Your task to perform on an android device: Show me popular games on the Play Store Image 0: 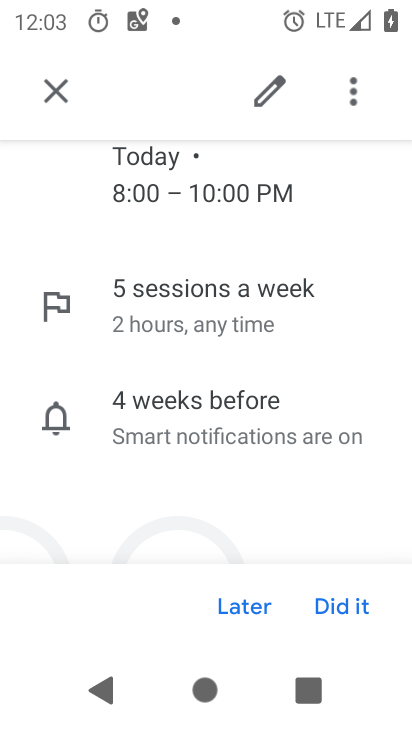
Step 0: press home button
Your task to perform on an android device: Show me popular games on the Play Store Image 1: 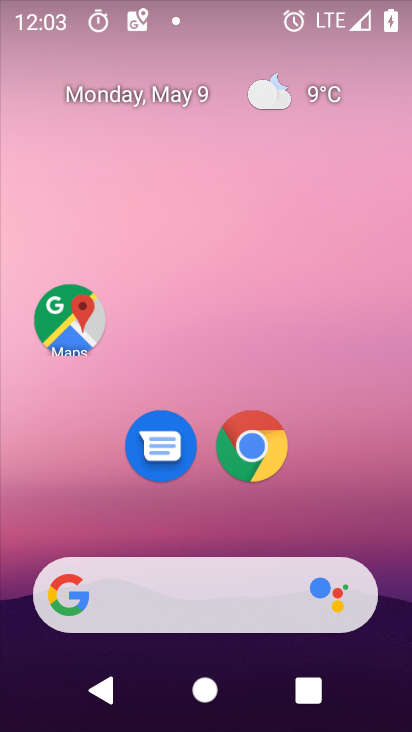
Step 1: drag from (354, 535) to (364, 42)
Your task to perform on an android device: Show me popular games on the Play Store Image 2: 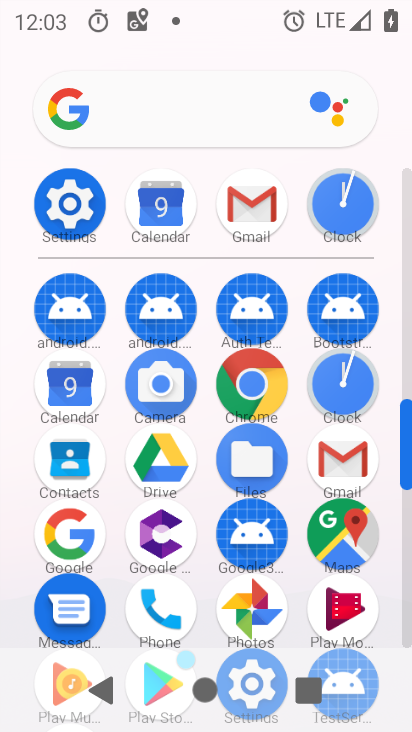
Step 2: drag from (408, 477) to (407, 439)
Your task to perform on an android device: Show me popular games on the Play Store Image 3: 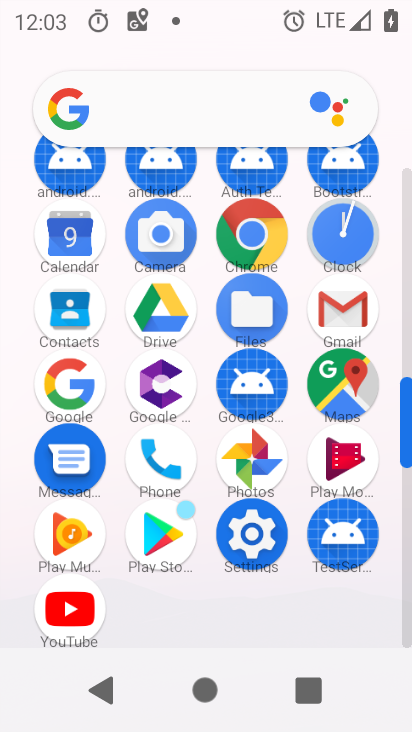
Step 3: click (163, 529)
Your task to perform on an android device: Show me popular games on the Play Store Image 4: 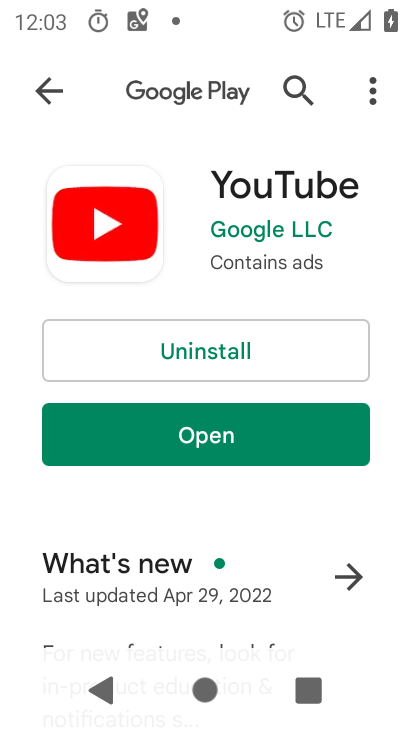
Step 4: click (47, 87)
Your task to perform on an android device: Show me popular games on the Play Store Image 5: 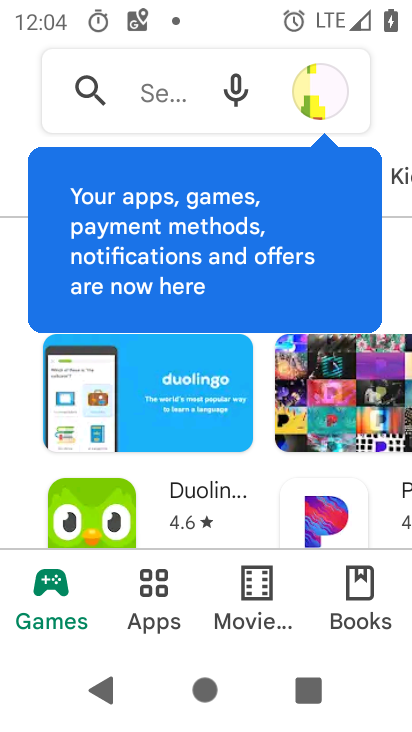
Step 5: click (42, 609)
Your task to perform on an android device: Show me popular games on the Play Store Image 6: 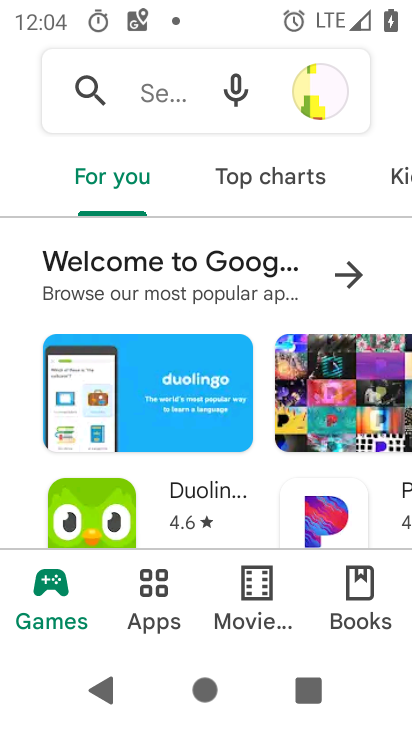
Step 6: drag from (208, 474) to (214, 240)
Your task to perform on an android device: Show me popular games on the Play Store Image 7: 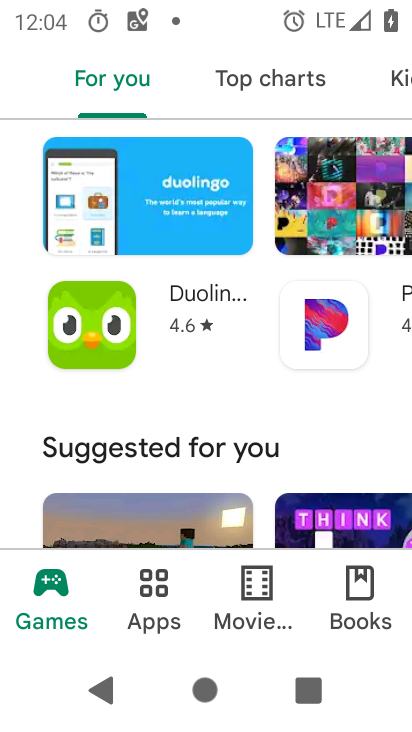
Step 7: drag from (213, 516) to (230, 611)
Your task to perform on an android device: Show me popular games on the Play Store Image 8: 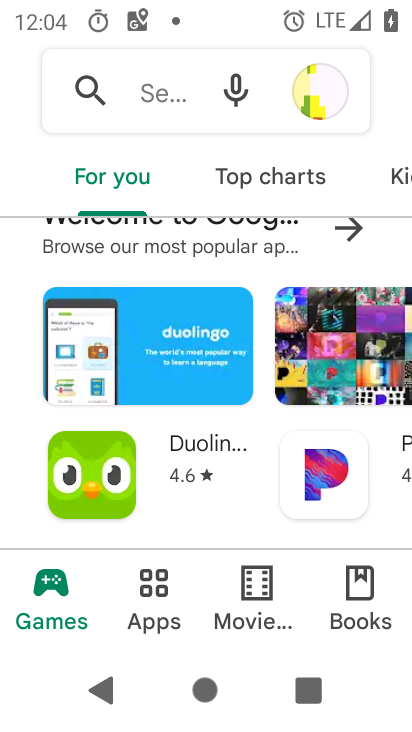
Step 8: drag from (310, 185) to (63, 190)
Your task to perform on an android device: Show me popular games on the Play Store Image 9: 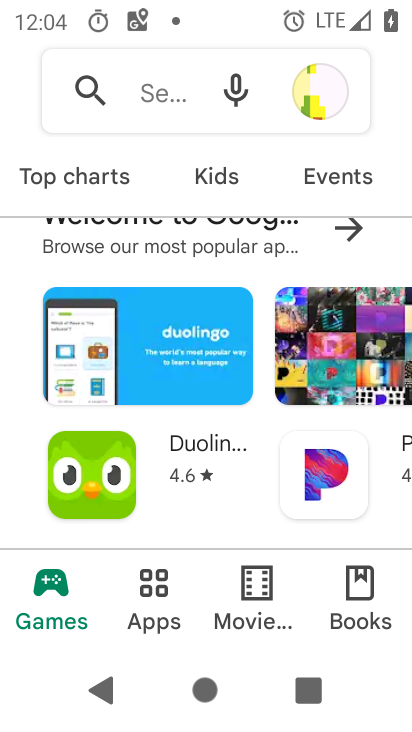
Step 9: drag from (321, 178) to (40, 198)
Your task to perform on an android device: Show me popular games on the Play Store Image 10: 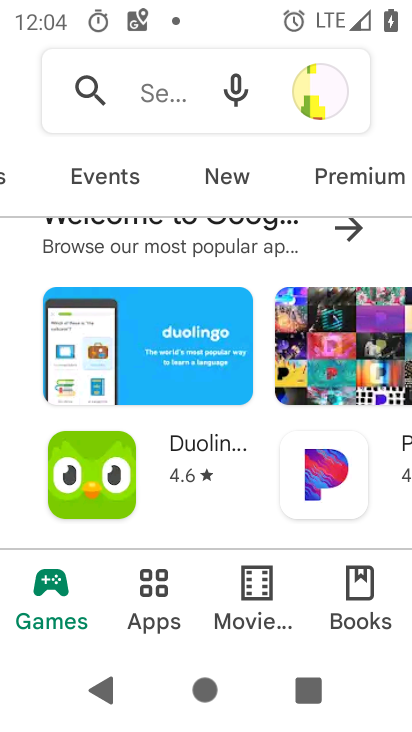
Step 10: click (297, 175)
Your task to perform on an android device: Show me popular games on the Play Store Image 11: 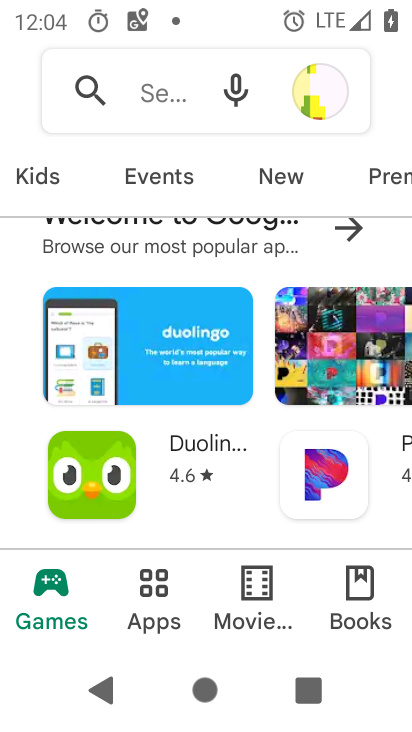
Step 11: drag from (213, 196) to (21, 177)
Your task to perform on an android device: Show me popular games on the Play Store Image 12: 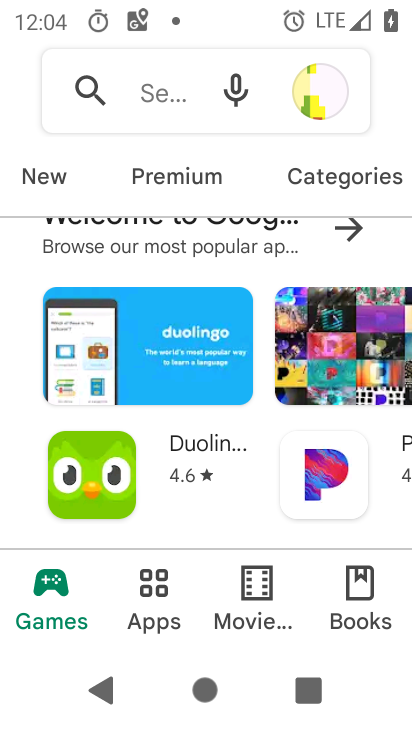
Step 12: click (338, 176)
Your task to perform on an android device: Show me popular games on the Play Store Image 13: 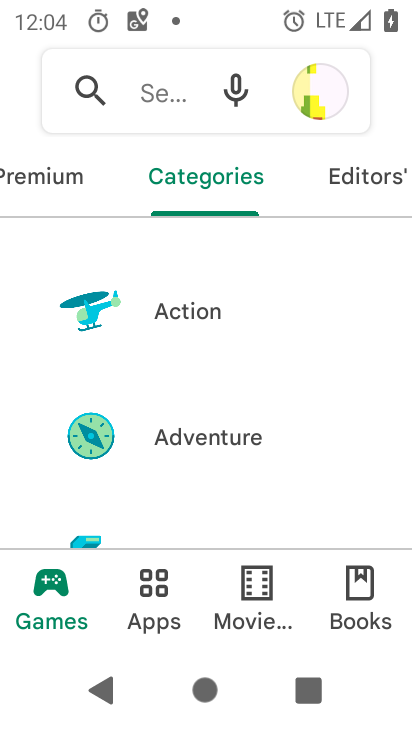
Step 13: drag from (208, 413) to (206, 80)
Your task to perform on an android device: Show me popular games on the Play Store Image 14: 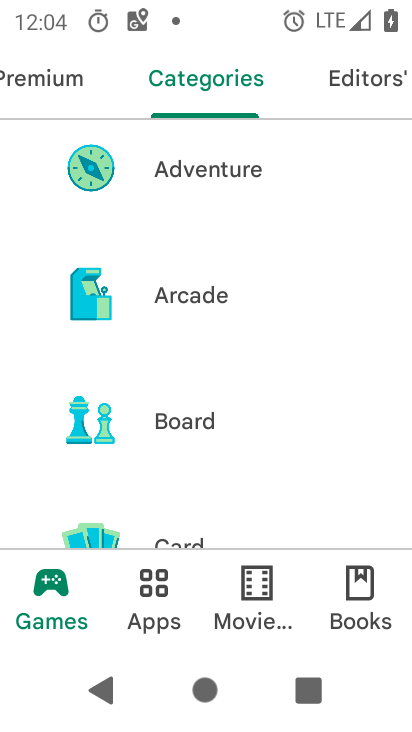
Step 14: drag from (199, 449) to (203, 104)
Your task to perform on an android device: Show me popular games on the Play Store Image 15: 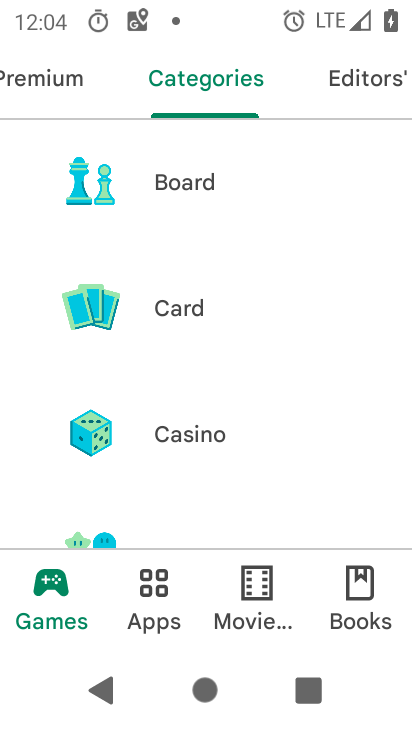
Step 15: drag from (188, 374) to (178, 22)
Your task to perform on an android device: Show me popular games on the Play Store Image 16: 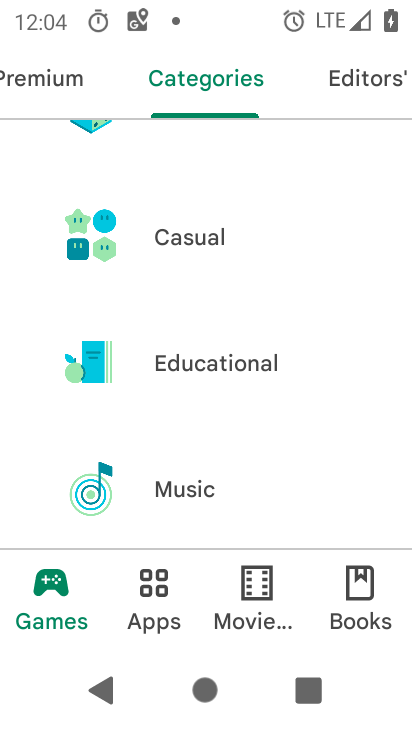
Step 16: drag from (205, 415) to (201, 75)
Your task to perform on an android device: Show me popular games on the Play Store Image 17: 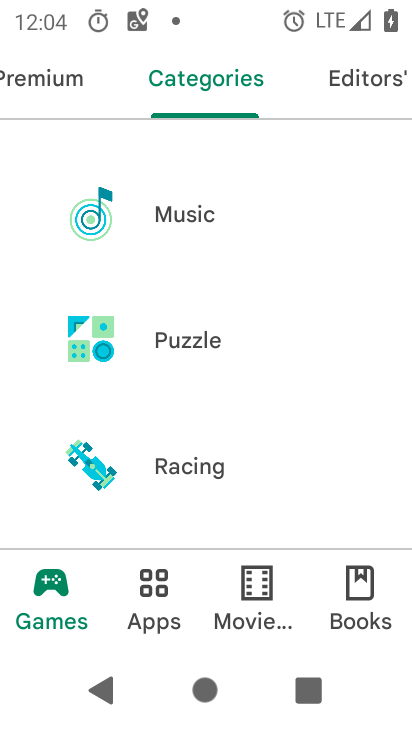
Step 17: drag from (179, 405) to (194, 142)
Your task to perform on an android device: Show me popular games on the Play Store Image 18: 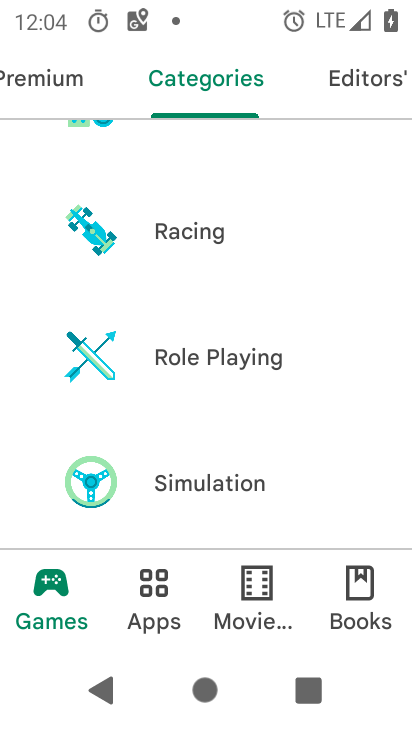
Step 18: drag from (205, 390) to (229, 126)
Your task to perform on an android device: Show me popular games on the Play Store Image 19: 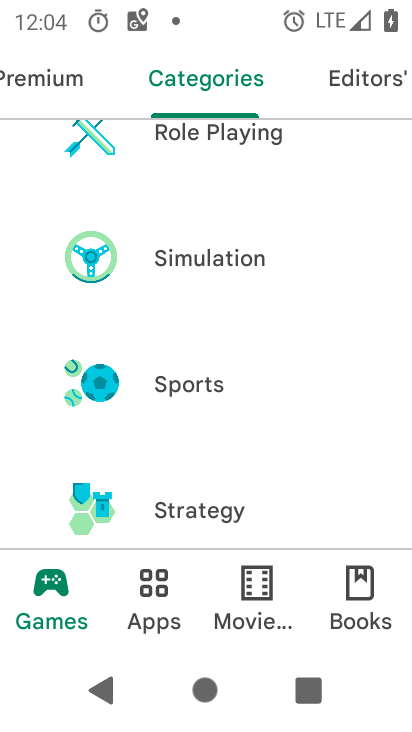
Step 19: drag from (175, 408) to (156, 158)
Your task to perform on an android device: Show me popular games on the Play Store Image 20: 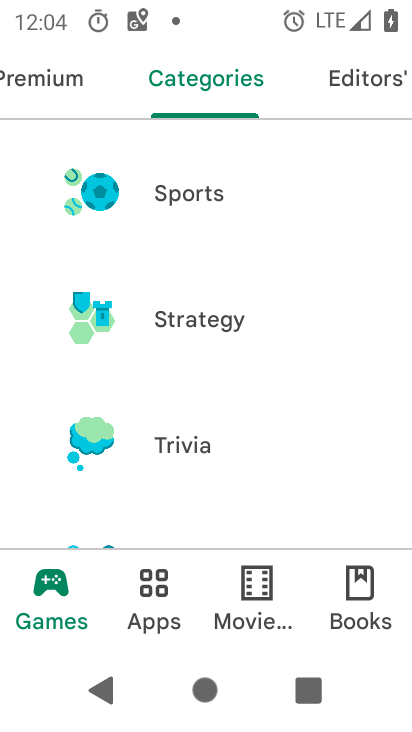
Step 20: drag from (170, 426) to (174, 152)
Your task to perform on an android device: Show me popular games on the Play Store Image 21: 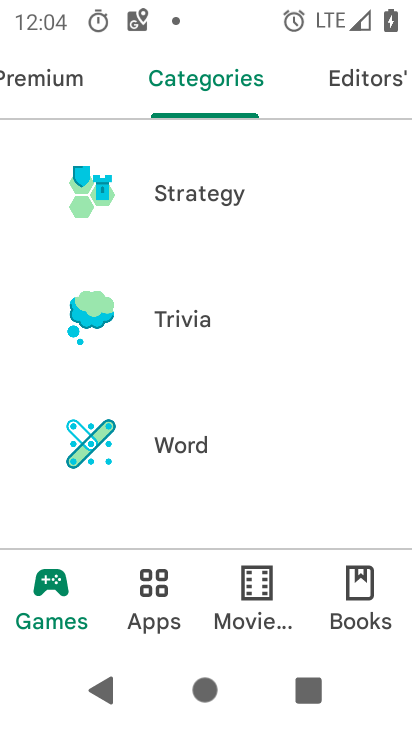
Step 21: drag from (169, 421) to (156, 145)
Your task to perform on an android device: Show me popular games on the Play Store Image 22: 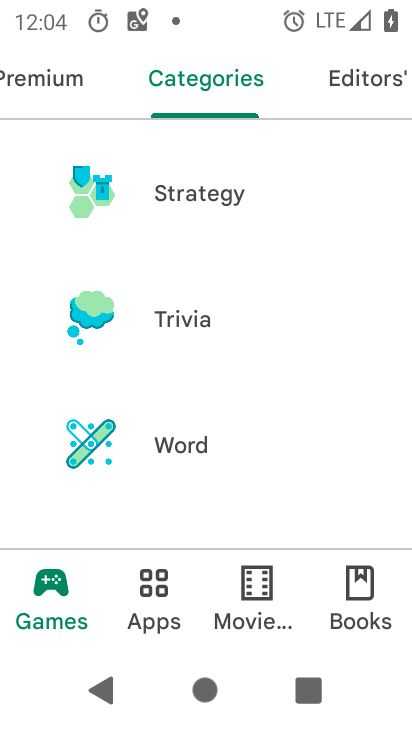
Step 22: drag from (192, 434) to (186, 210)
Your task to perform on an android device: Show me popular games on the Play Store Image 23: 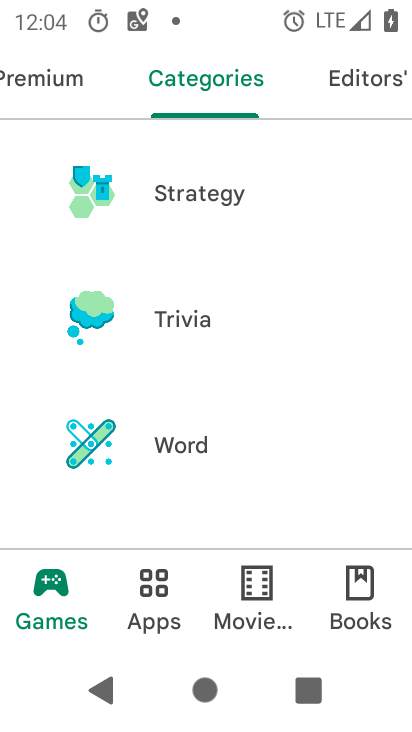
Step 23: press back button
Your task to perform on an android device: Show me popular games on the Play Store Image 24: 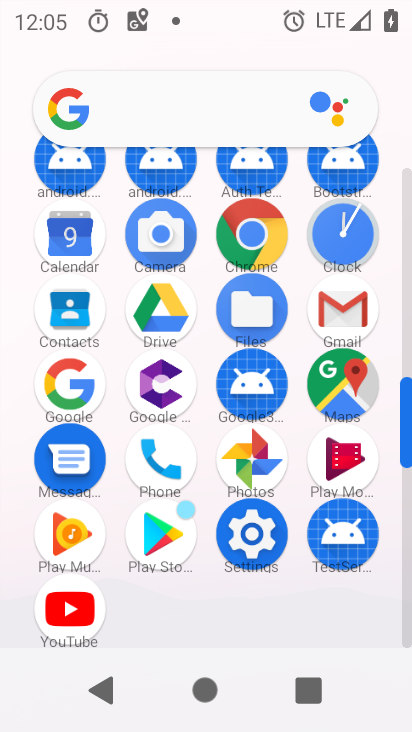
Step 24: click (156, 534)
Your task to perform on an android device: Show me popular games on the Play Store Image 25: 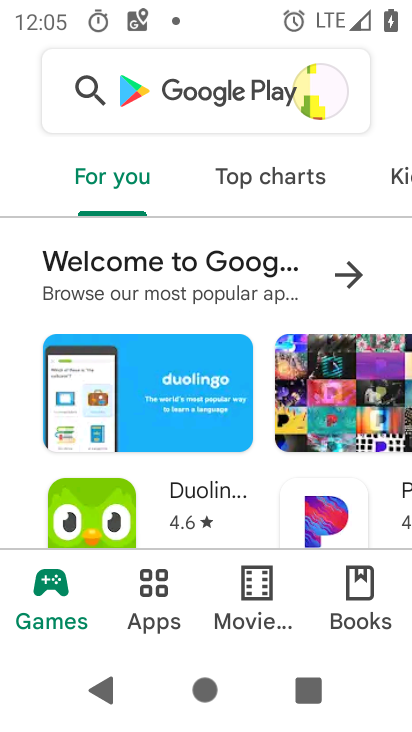
Step 25: task complete